Your task to perform on an android device: Search for seafood restaurants on Google Maps Image 0: 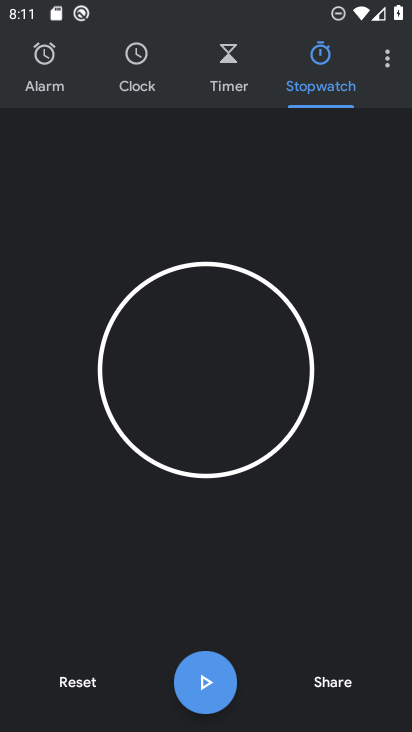
Step 0: press home button
Your task to perform on an android device: Search for seafood restaurants on Google Maps Image 1: 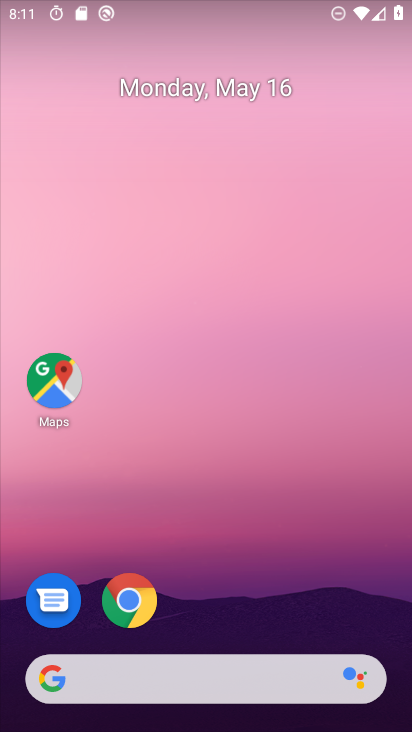
Step 1: click (50, 379)
Your task to perform on an android device: Search for seafood restaurants on Google Maps Image 2: 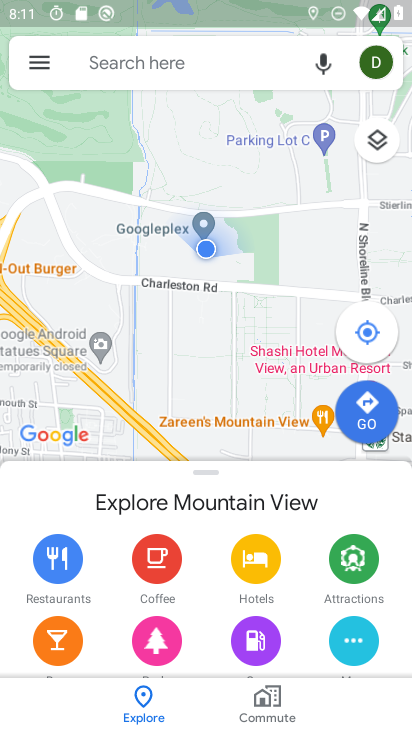
Step 2: click (161, 62)
Your task to perform on an android device: Search for seafood restaurants on Google Maps Image 3: 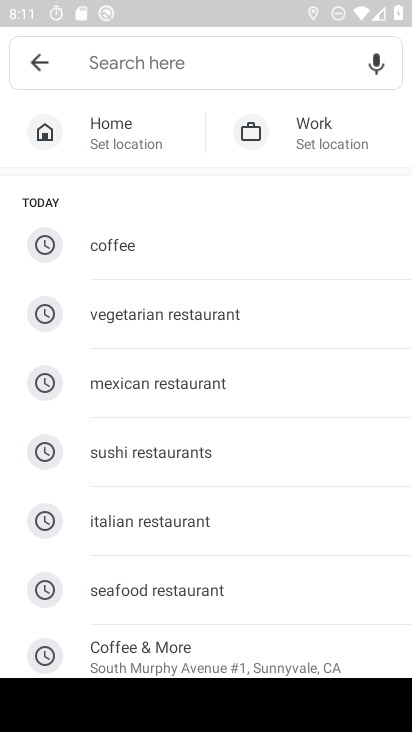
Step 3: click (157, 596)
Your task to perform on an android device: Search for seafood restaurants on Google Maps Image 4: 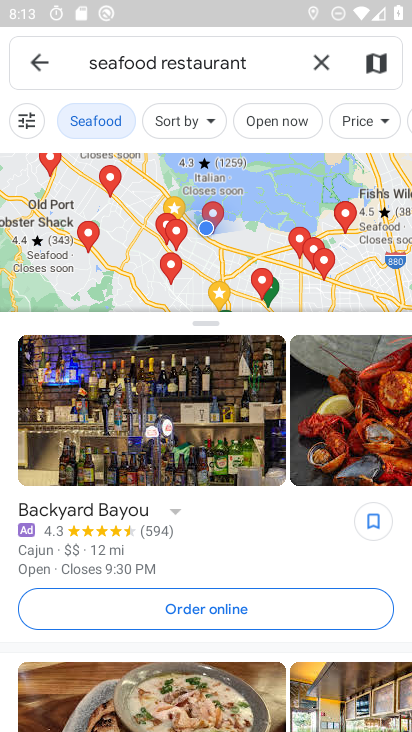
Step 4: task complete